Your task to perform on an android device: uninstall "Nova Launcher" Image 0: 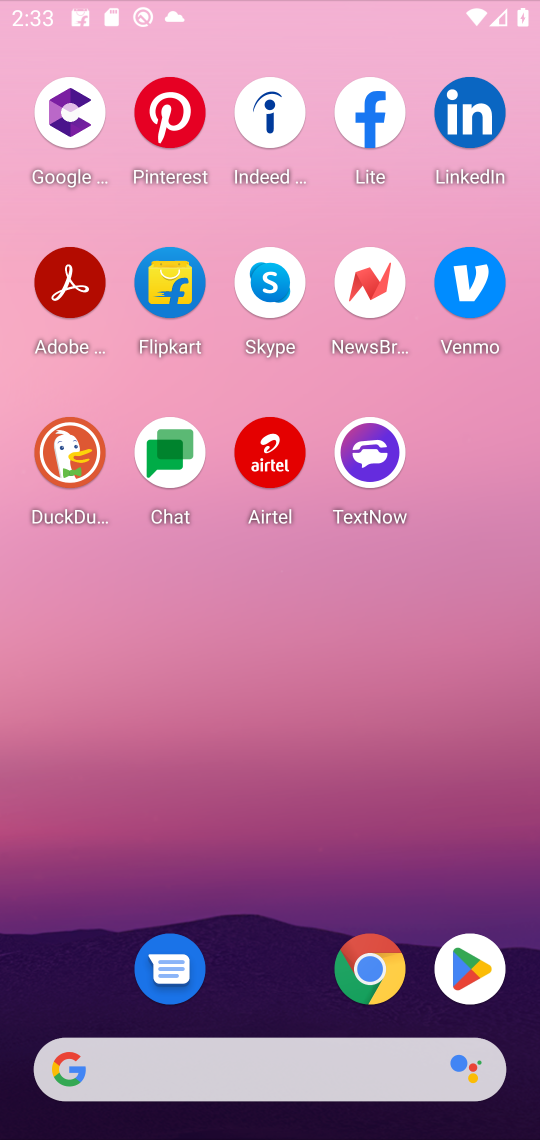
Step 0: press home button
Your task to perform on an android device: uninstall "Nova Launcher" Image 1: 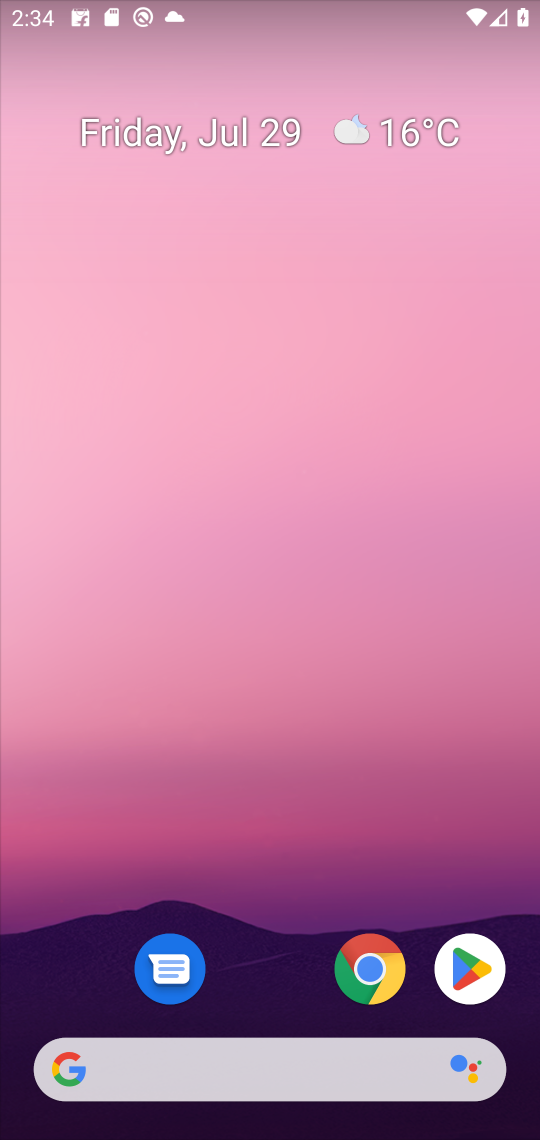
Step 1: click (456, 972)
Your task to perform on an android device: uninstall "Nova Launcher" Image 2: 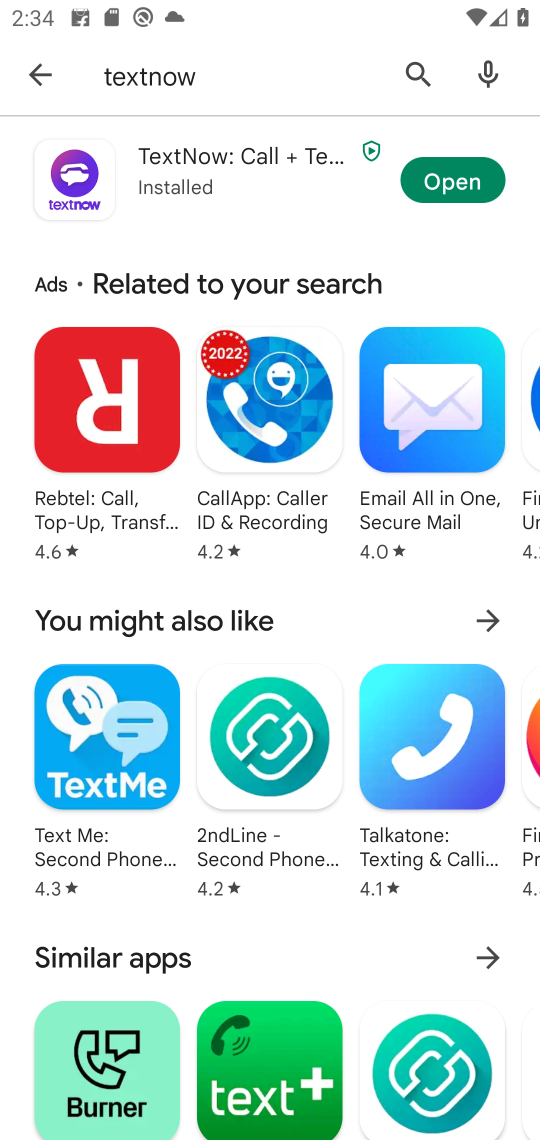
Step 2: click (425, 66)
Your task to perform on an android device: uninstall "Nova Launcher" Image 3: 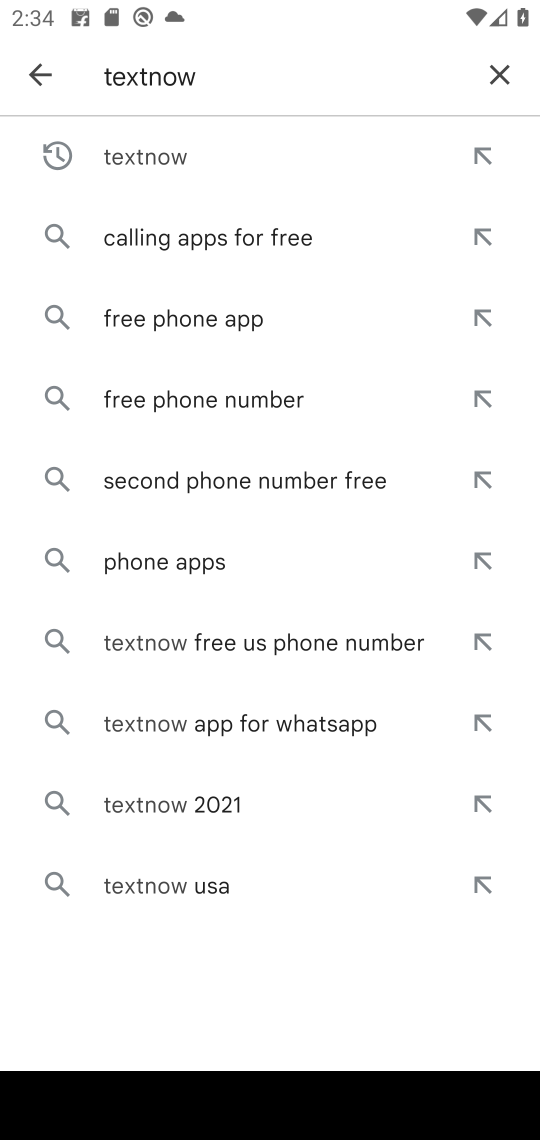
Step 3: click (499, 76)
Your task to perform on an android device: uninstall "Nova Launcher" Image 4: 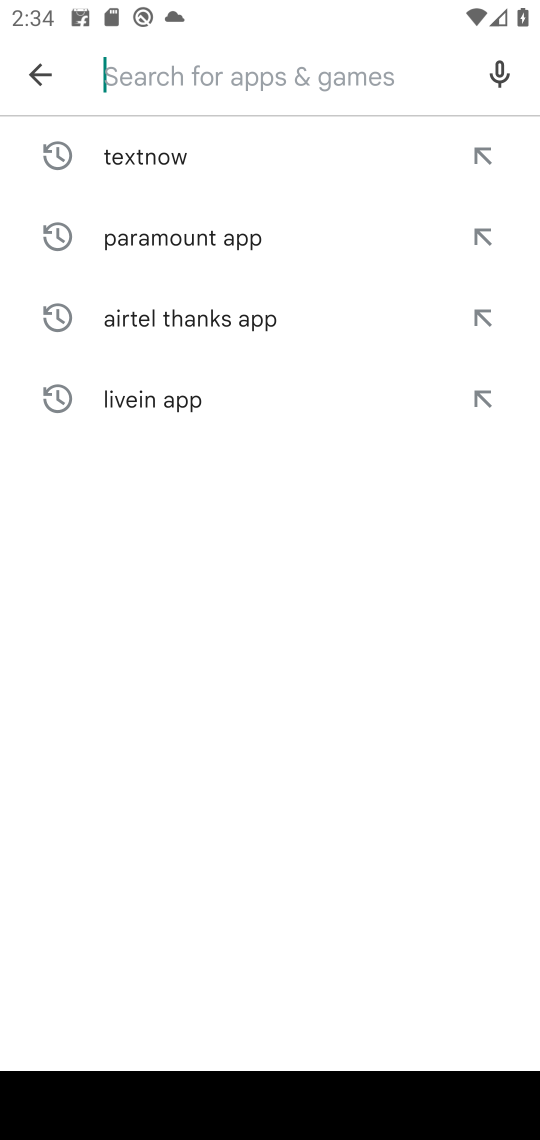
Step 4: type "nova"
Your task to perform on an android device: uninstall "Nova Launcher" Image 5: 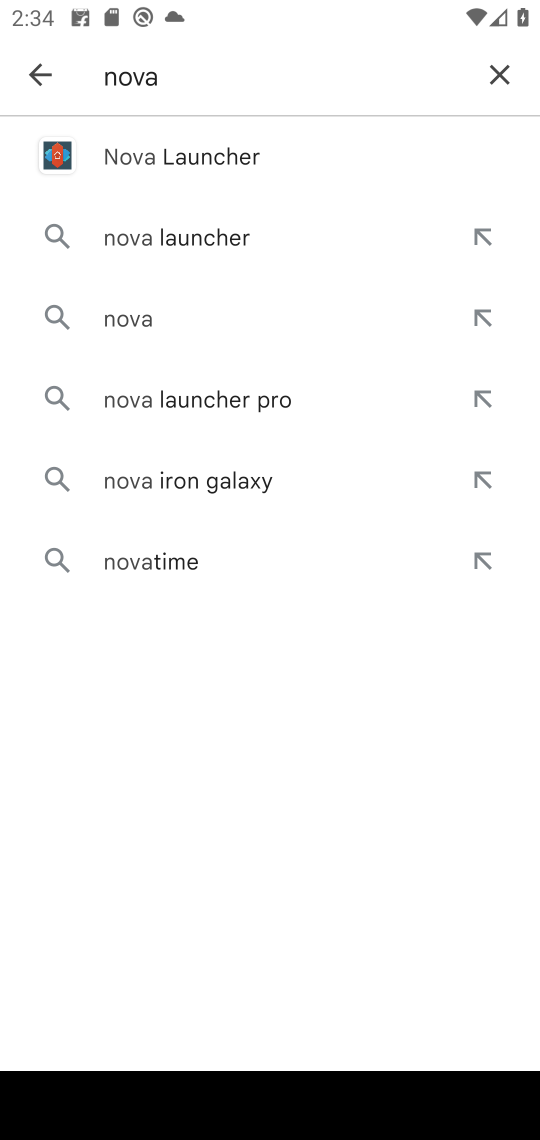
Step 5: click (191, 139)
Your task to perform on an android device: uninstall "Nova Launcher" Image 6: 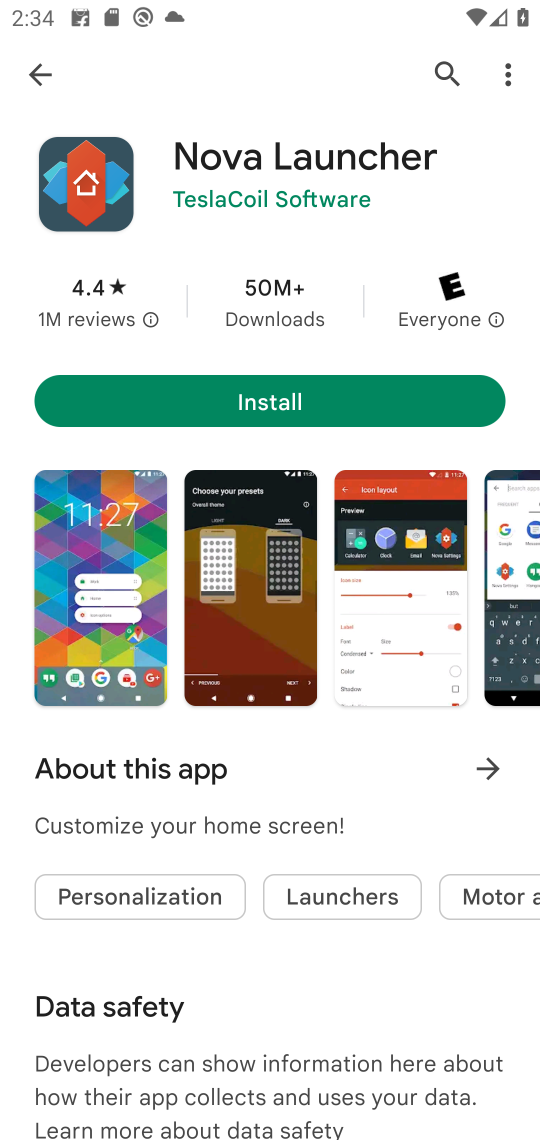
Step 6: click (115, 176)
Your task to perform on an android device: uninstall "Nova Launcher" Image 7: 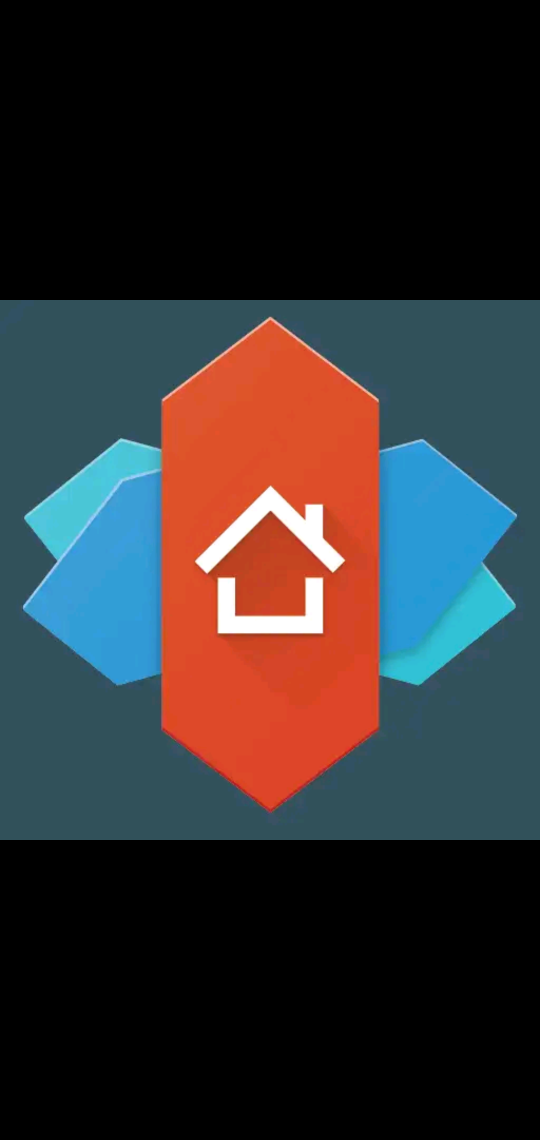
Step 7: task complete